Your task to perform on an android device: turn on the 12-hour format for clock Image 0: 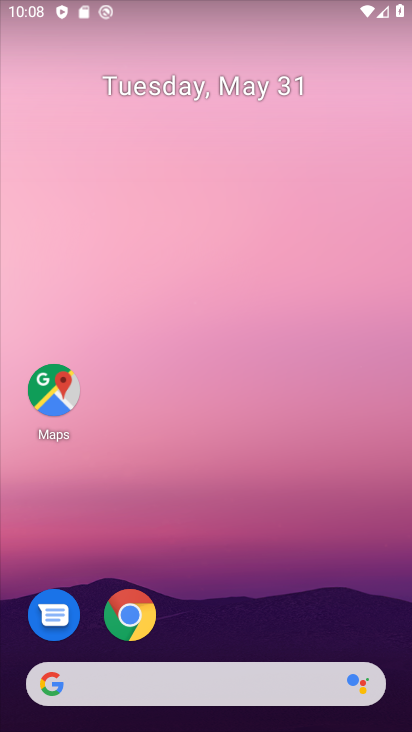
Step 0: click (147, 632)
Your task to perform on an android device: turn on the 12-hour format for clock Image 1: 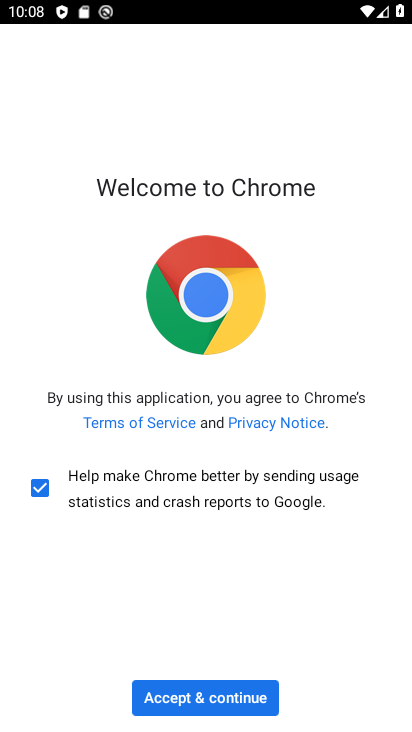
Step 1: task complete